Your task to perform on an android device: turn off priority inbox in the gmail app Image 0: 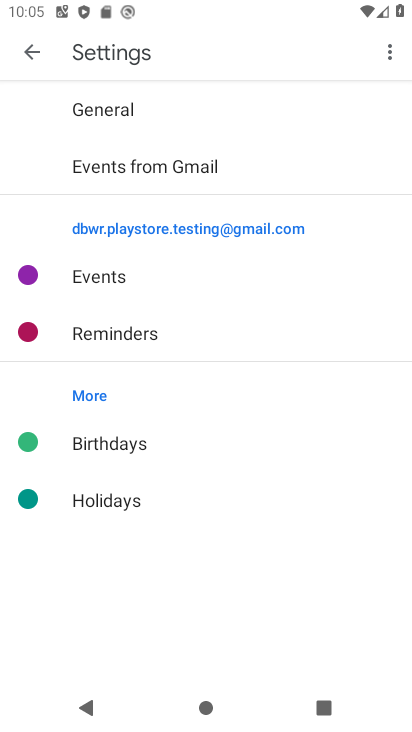
Step 0: press home button
Your task to perform on an android device: turn off priority inbox in the gmail app Image 1: 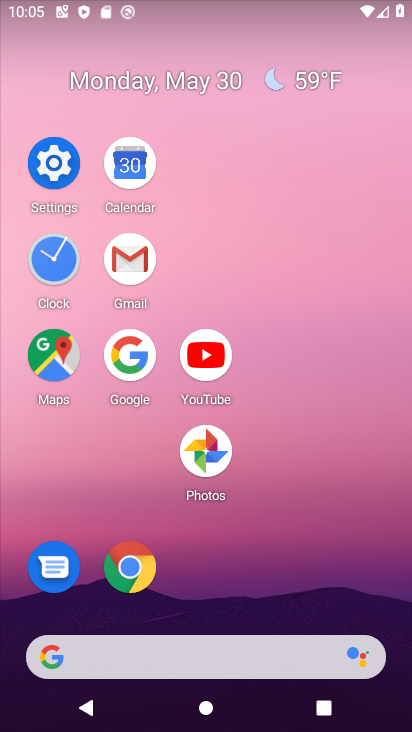
Step 1: click (129, 255)
Your task to perform on an android device: turn off priority inbox in the gmail app Image 2: 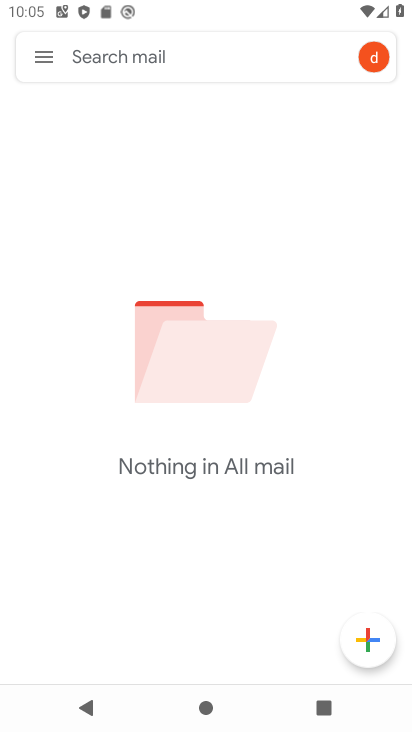
Step 2: click (58, 65)
Your task to perform on an android device: turn off priority inbox in the gmail app Image 3: 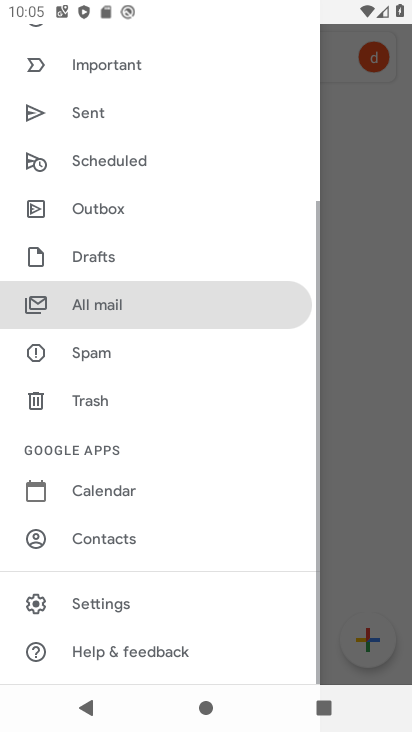
Step 3: click (167, 625)
Your task to perform on an android device: turn off priority inbox in the gmail app Image 4: 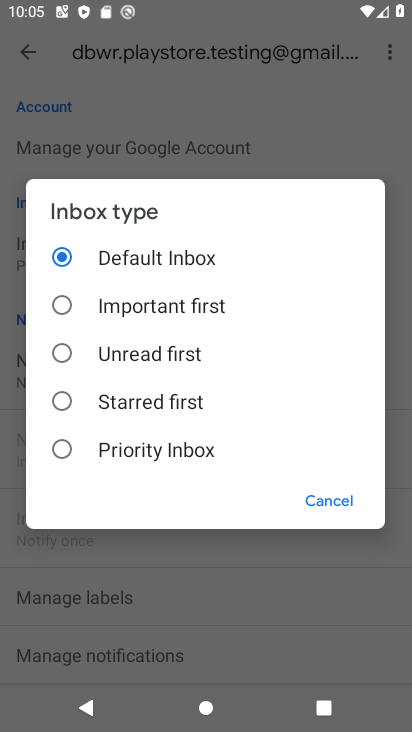
Step 4: task complete